Your task to perform on an android device: Check the weather Image 0: 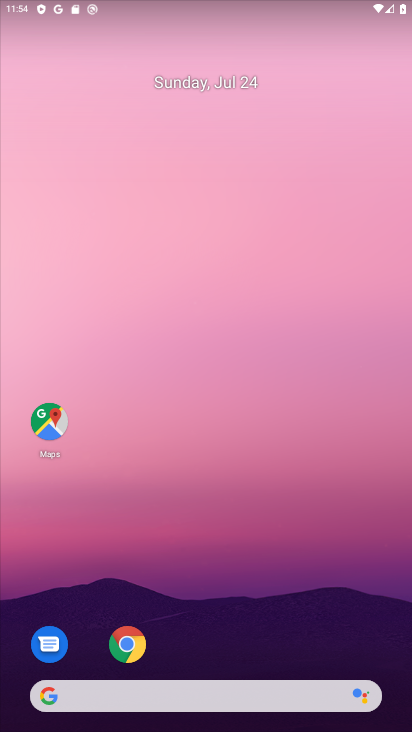
Step 0: click (288, 686)
Your task to perform on an android device: Check the weather Image 1: 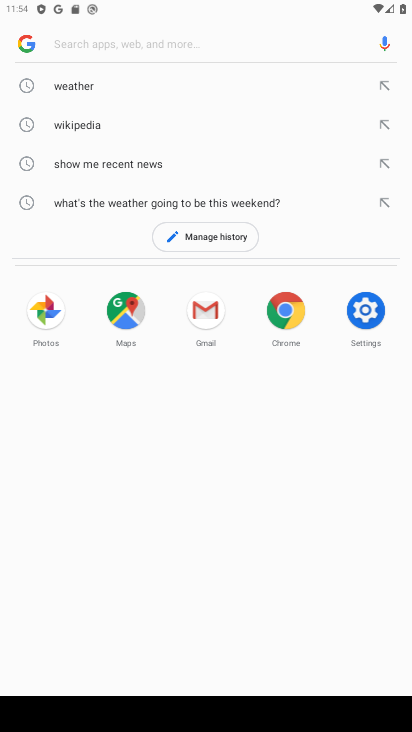
Step 1: click (66, 82)
Your task to perform on an android device: Check the weather Image 2: 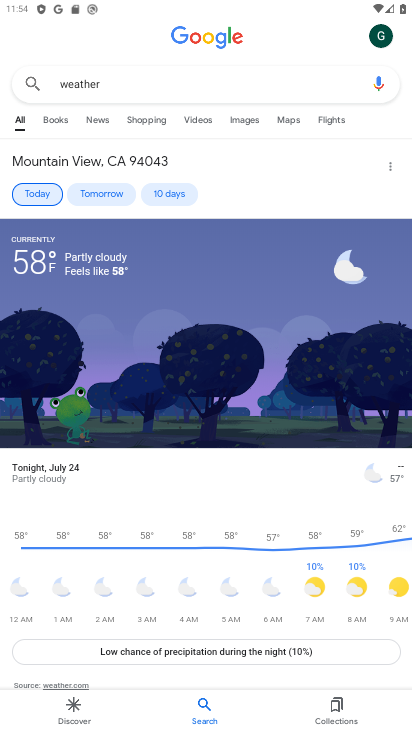
Step 2: task complete